Your task to perform on an android device: Open Wikipedia Image 0: 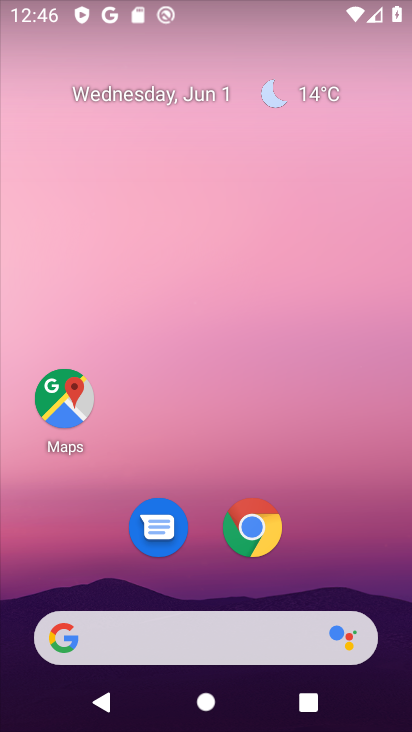
Step 0: drag from (213, 567) to (213, 215)
Your task to perform on an android device: Open Wikipedia Image 1: 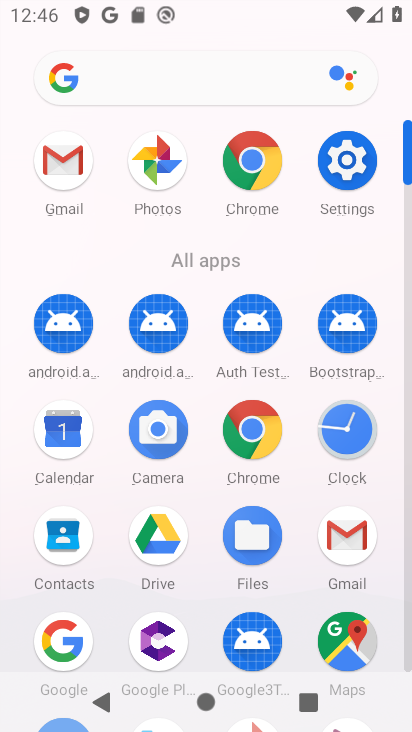
Step 1: click (247, 191)
Your task to perform on an android device: Open Wikipedia Image 2: 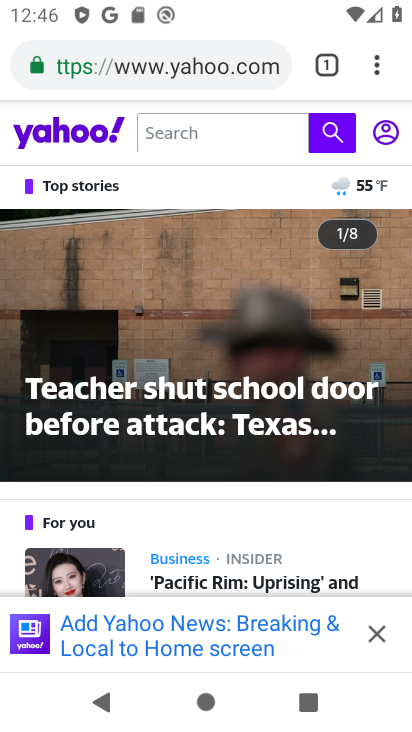
Step 2: click (218, 69)
Your task to perform on an android device: Open Wikipedia Image 3: 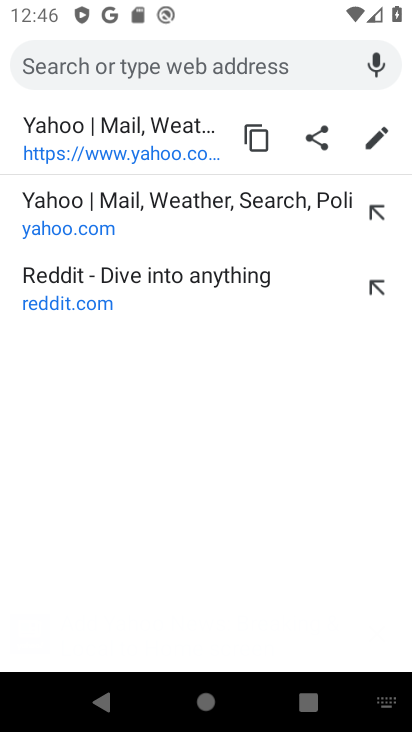
Step 3: type "wiki"
Your task to perform on an android device: Open Wikipedia Image 4: 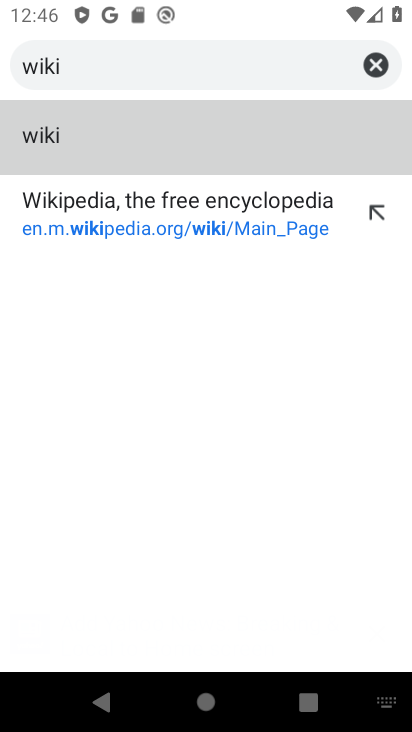
Step 4: click (279, 229)
Your task to perform on an android device: Open Wikipedia Image 5: 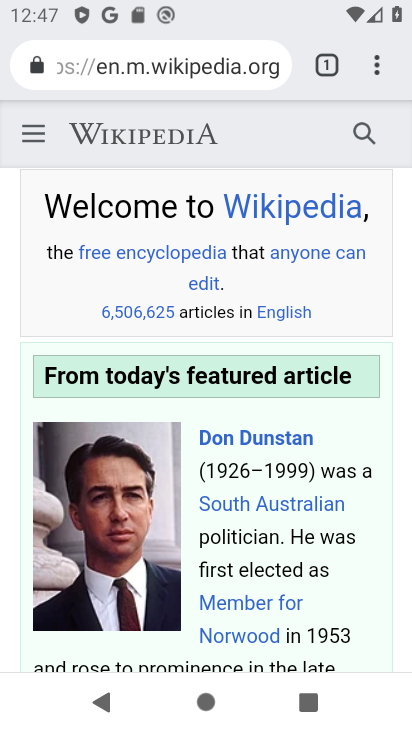
Step 5: task complete